Your task to perform on an android device: turn on the 24-hour format for clock Image 0: 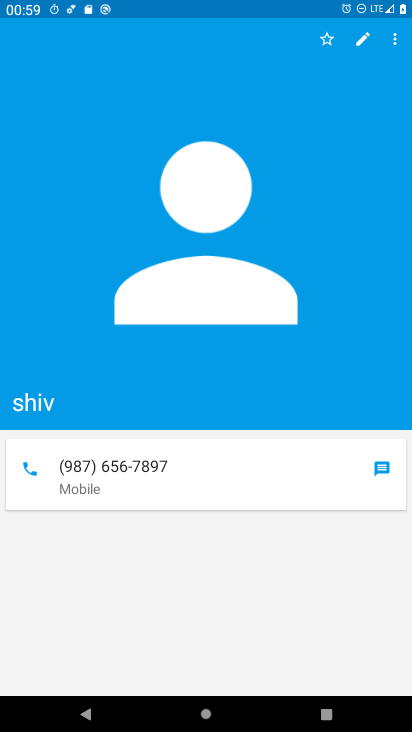
Step 0: press home button
Your task to perform on an android device: turn on the 24-hour format for clock Image 1: 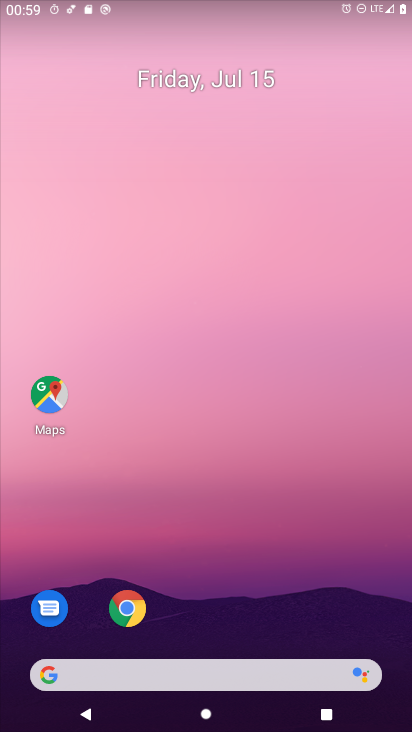
Step 1: drag from (289, 649) to (264, 126)
Your task to perform on an android device: turn on the 24-hour format for clock Image 2: 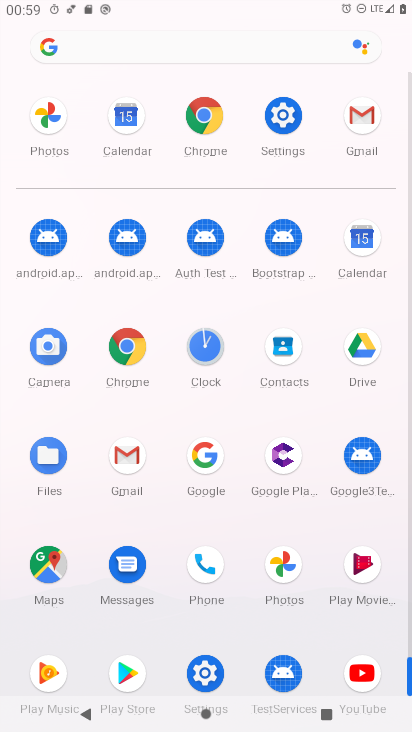
Step 2: click (200, 342)
Your task to perform on an android device: turn on the 24-hour format for clock Image 3: 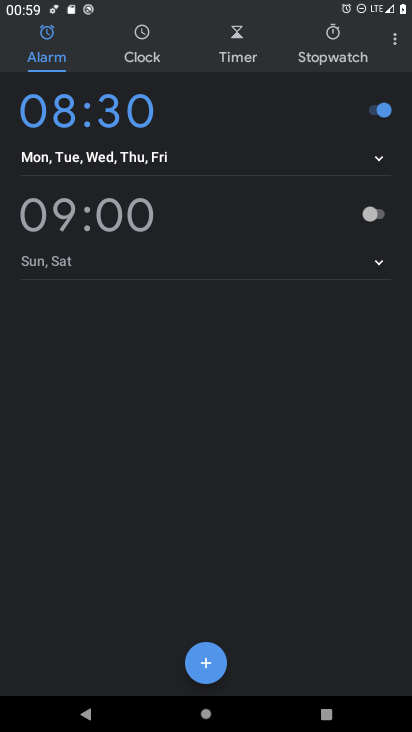
Step 3: click (389, 42)
Your task to perform on an android device: turn on the 24-hour format for clock Image 4: 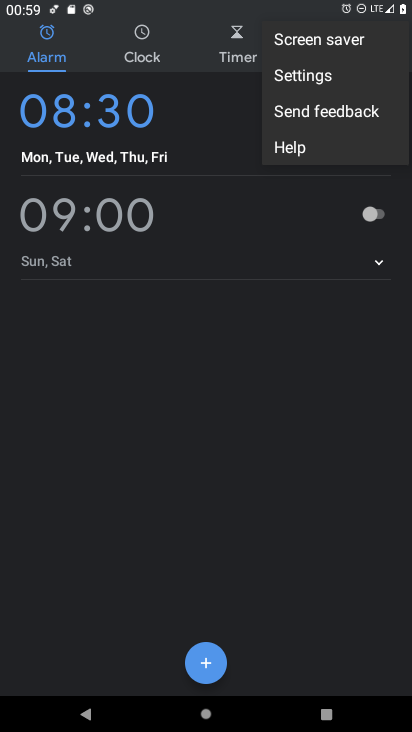
Step 4: click (315, 69)
Your task to perform on an android device: turn on the 24-hour format for clock Image 5: 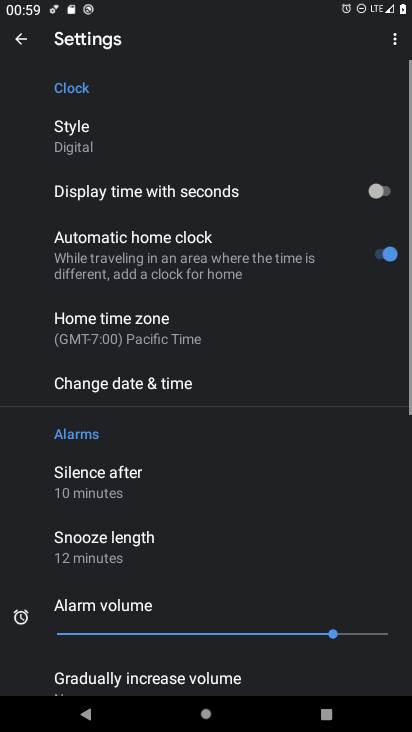
Step 5: click (154, 392)
Your task to perform on an android device: turn on the 24-hour format for clock Image 6: 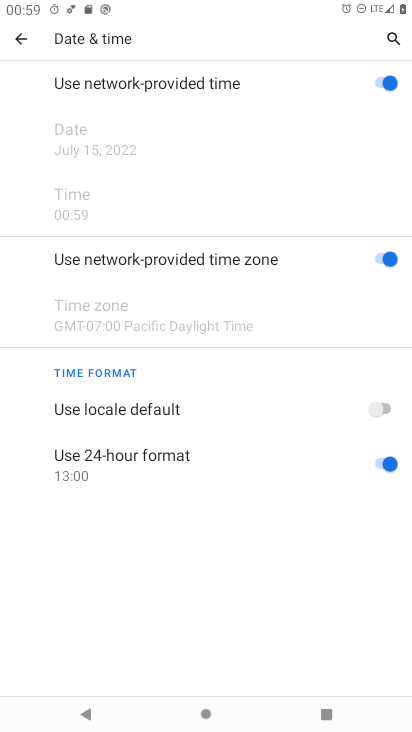
Step 6: task complete